Your task to perform on an android device: search for starred emails in the gmail app Image 0: 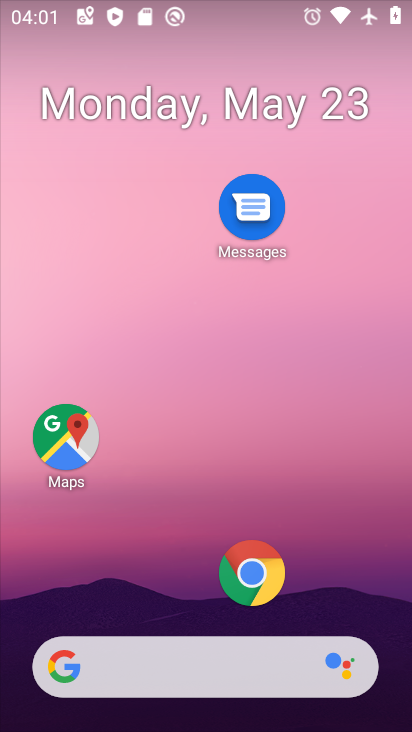
Step 0: drag from (277, 677) to (293, 61)
Your task to perform on an android device: search for starred emails in the gmail app Image 1: 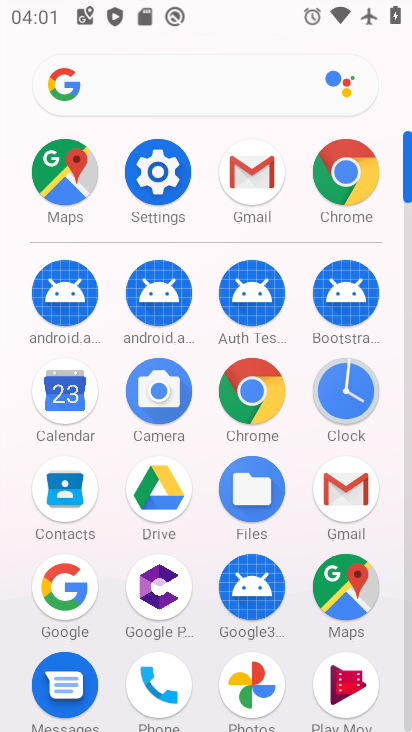
Step 1: click (337, 491)
Your task to perform on an android device: search for starred emails in the gmail app Image 2: 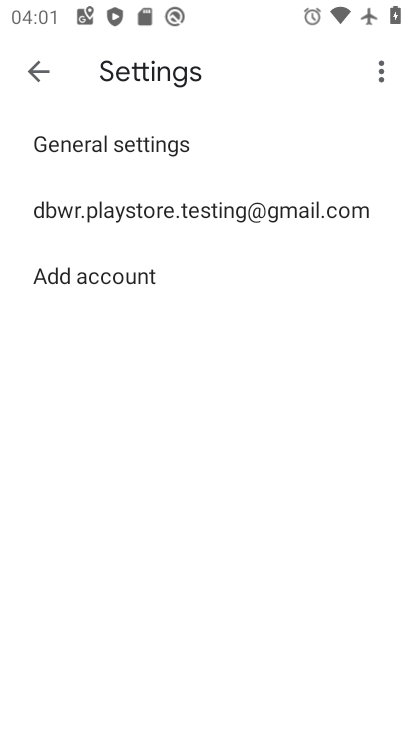
Step 2: task complete